Your task to perform on an android device: open app "McDonald's" (install if not already installed) Image 0: 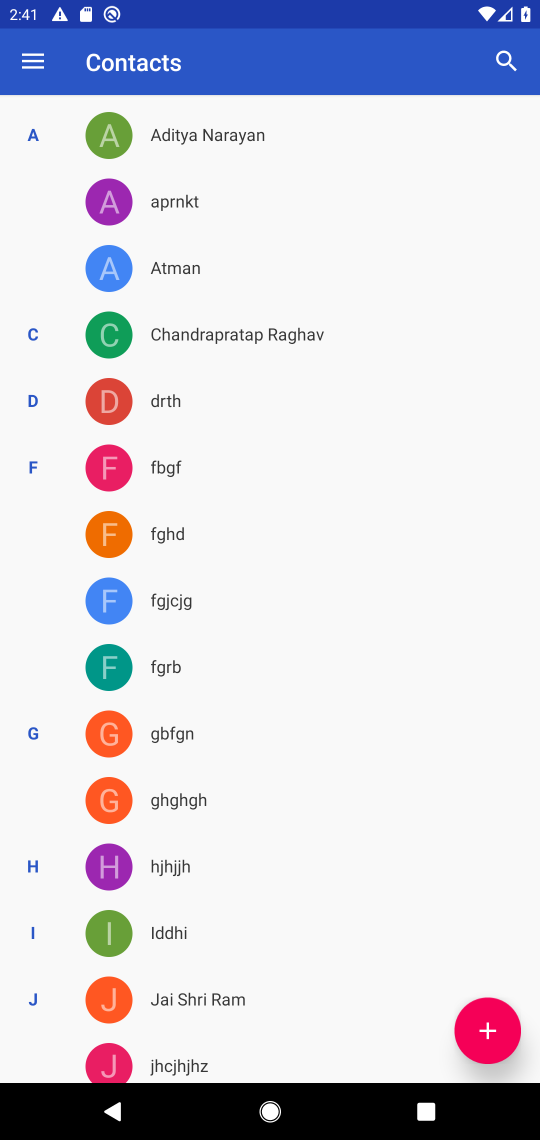
Step 0: press home button
Your task to perform on an android device: open app "McDonald's" (install if not already installed) Image 1: 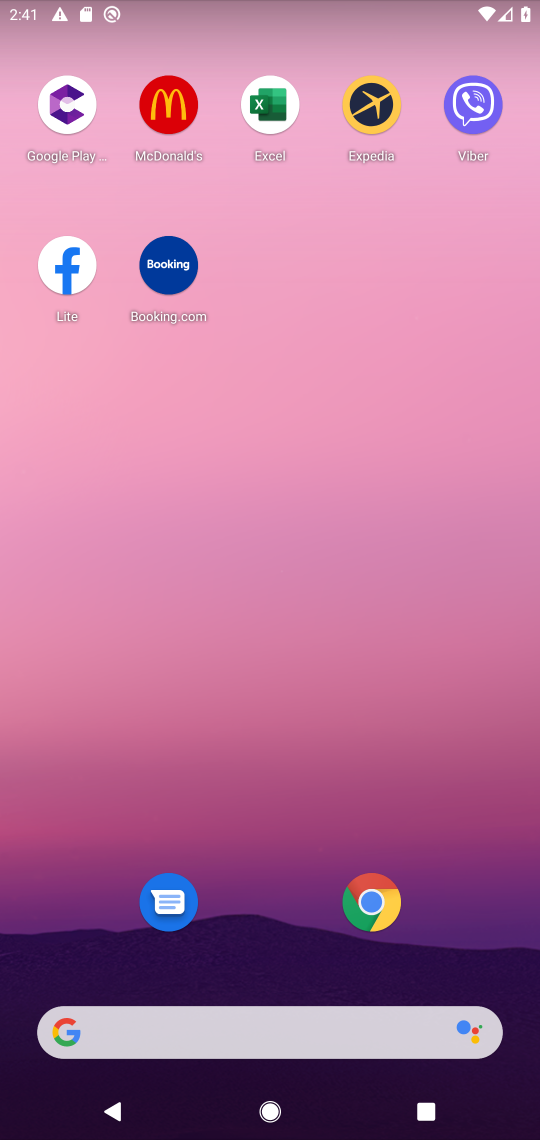
Step 1: click (165, 110)
Your task to perform on an android device: open app "McDonald's" (install if not already installed) Image 2: 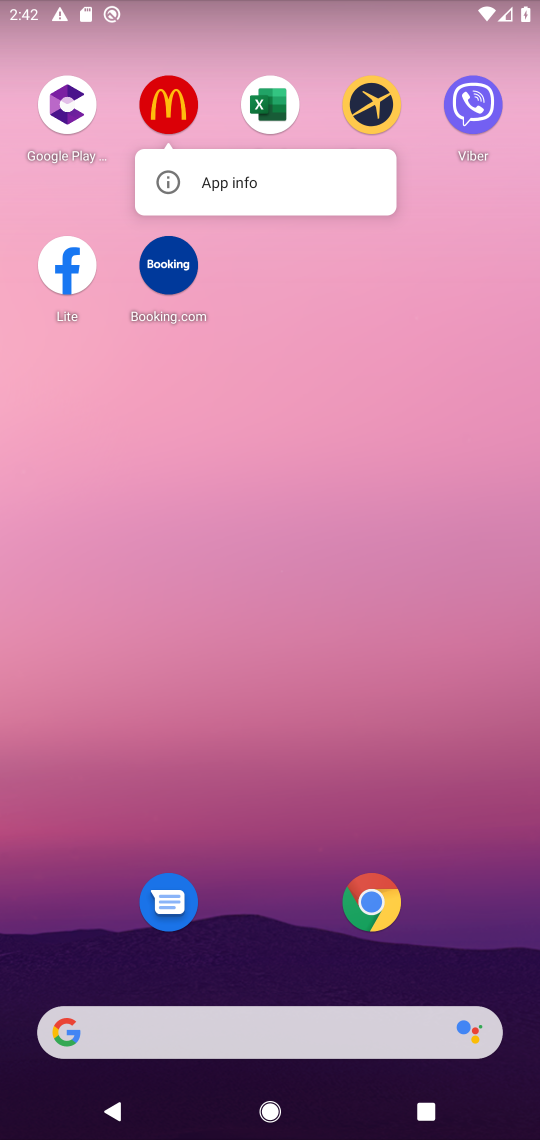
Step 2: click (186, 96)
Your task to perform on an android device: open app "McDonald's" (install if not already installed) Image 3: 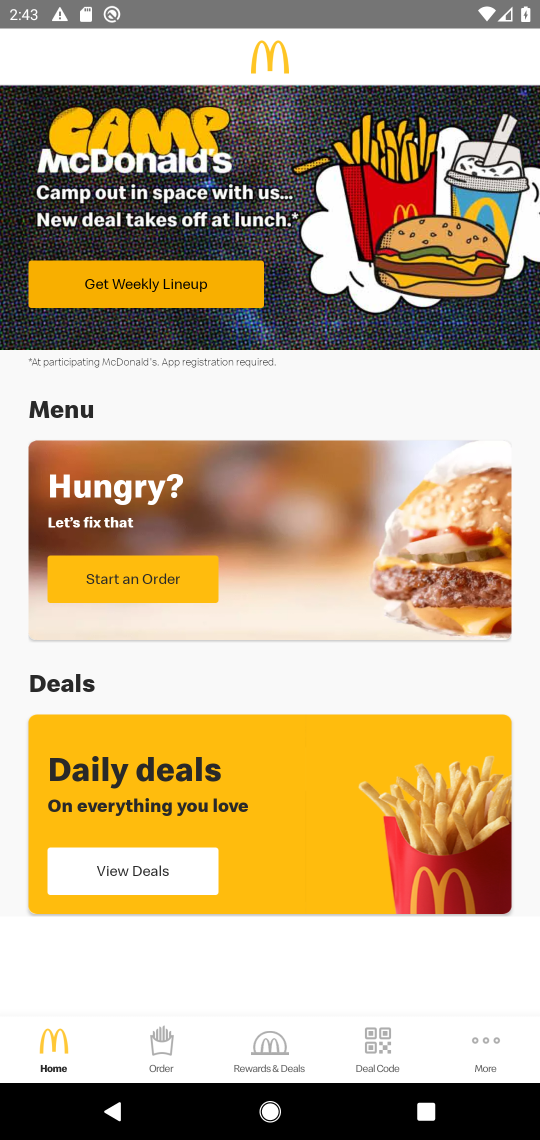
Step 3: task complete